Your task to perform on an android device: turn off location history Image 0: 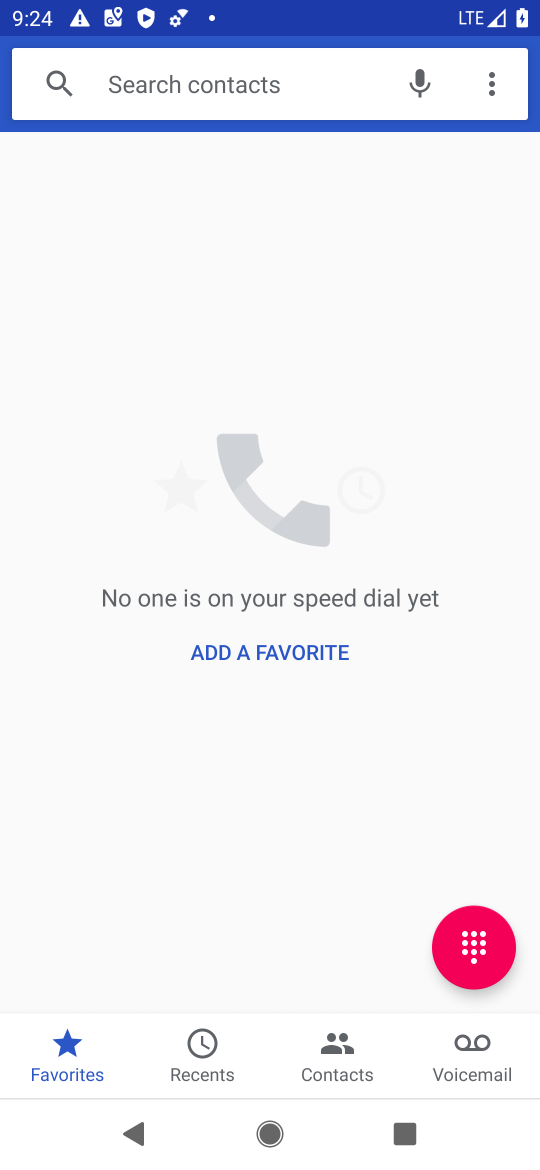
Step 0: press home button
Your task to perform on an android device: turn off location history Image 1: 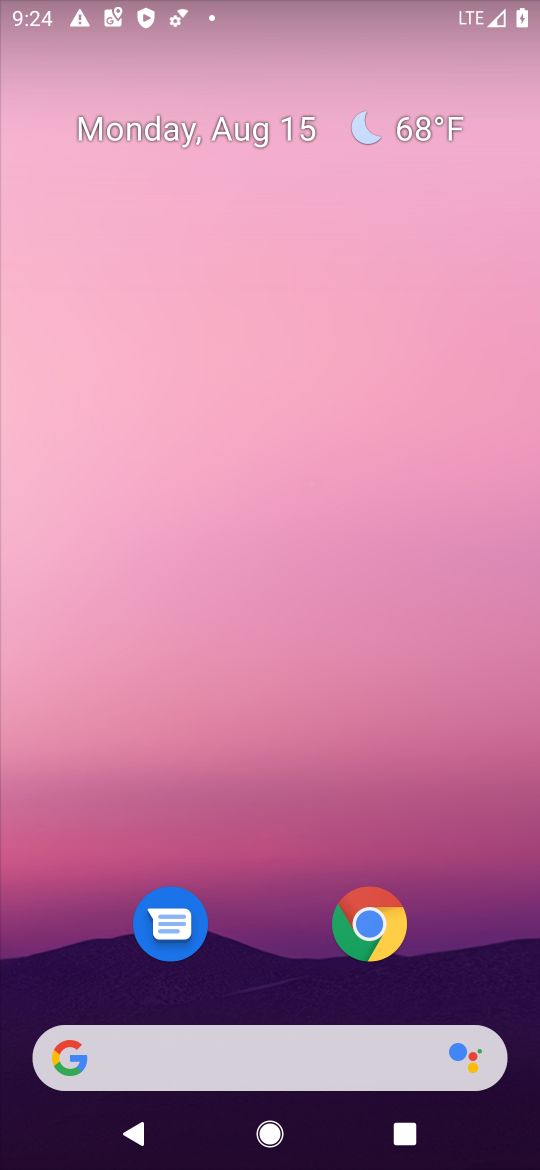
Step 1: drag from (493, 974) to (434, 186)
Your task to perform on an android device: turn off location history Image 2: 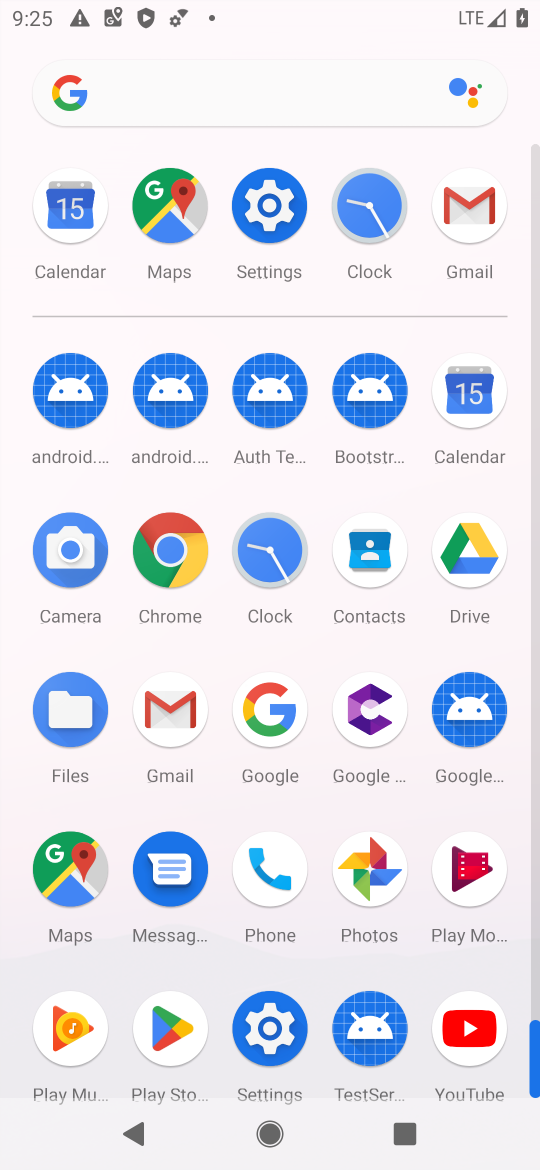
Step 2: click (71, 864)
Your task to perform on an android device: turn off location history Image 3: 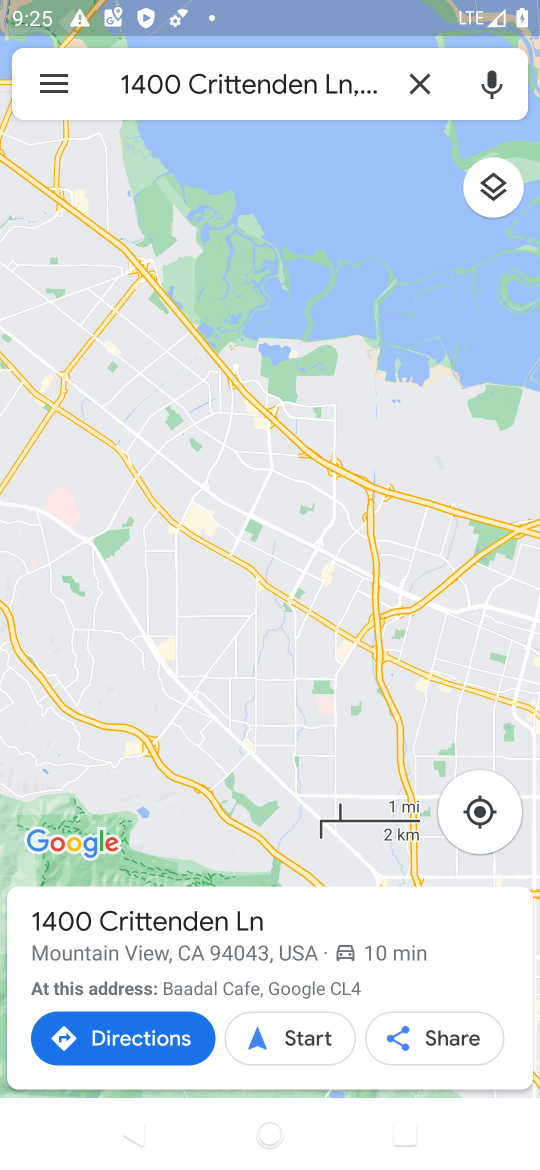
Step 3: click (416, 75)
Your task to perform on an android device: turn off location history Image 4: 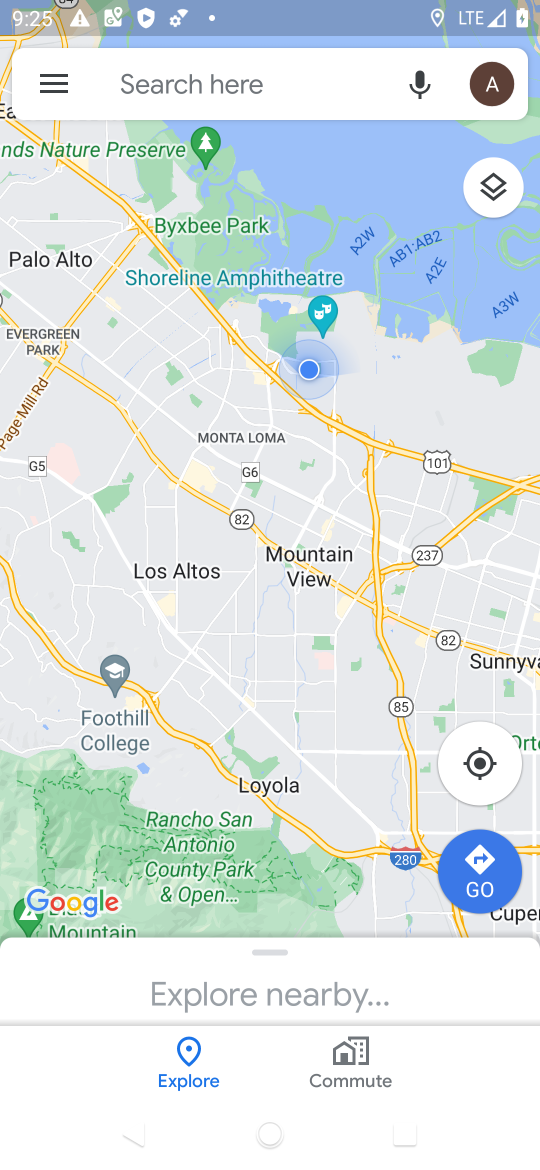
Step 4: click (51, 88)
Your task to perform on an android device: turn off location history Image 5: 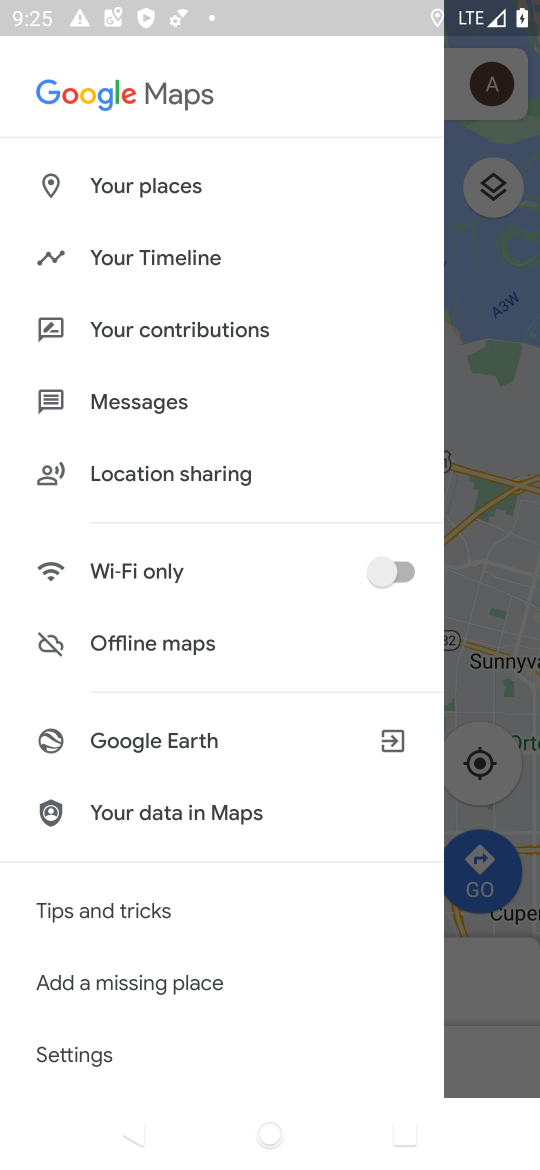
Step 5: drag from (211, 1034) to (218, 440)
Your task to perform on an android device: turn off location history Image 6: 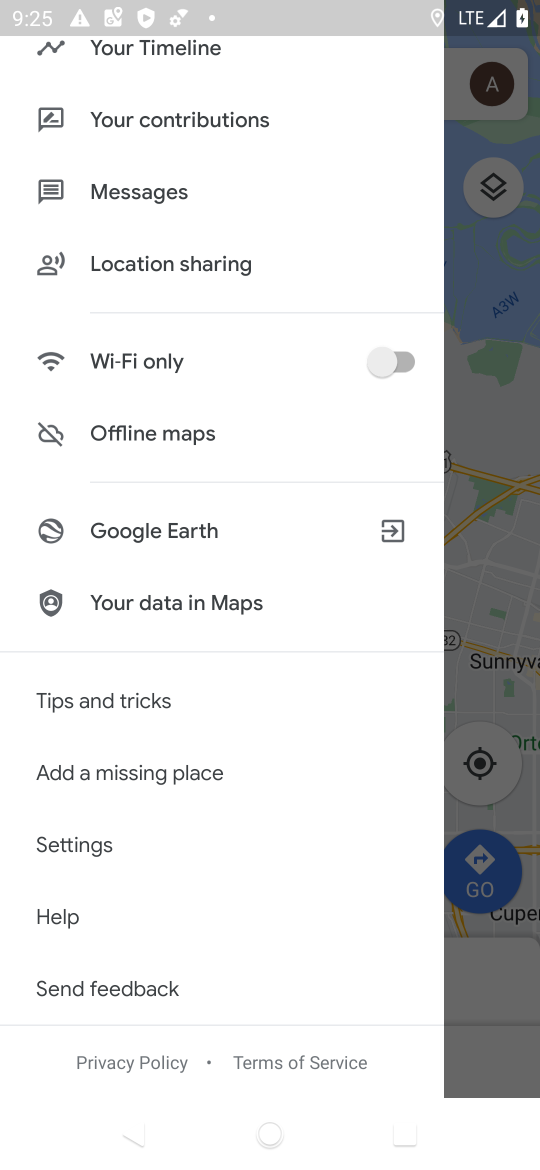
Step 6: click (65, 853)
Your task to perform on an android device: turn off location history Image 7: 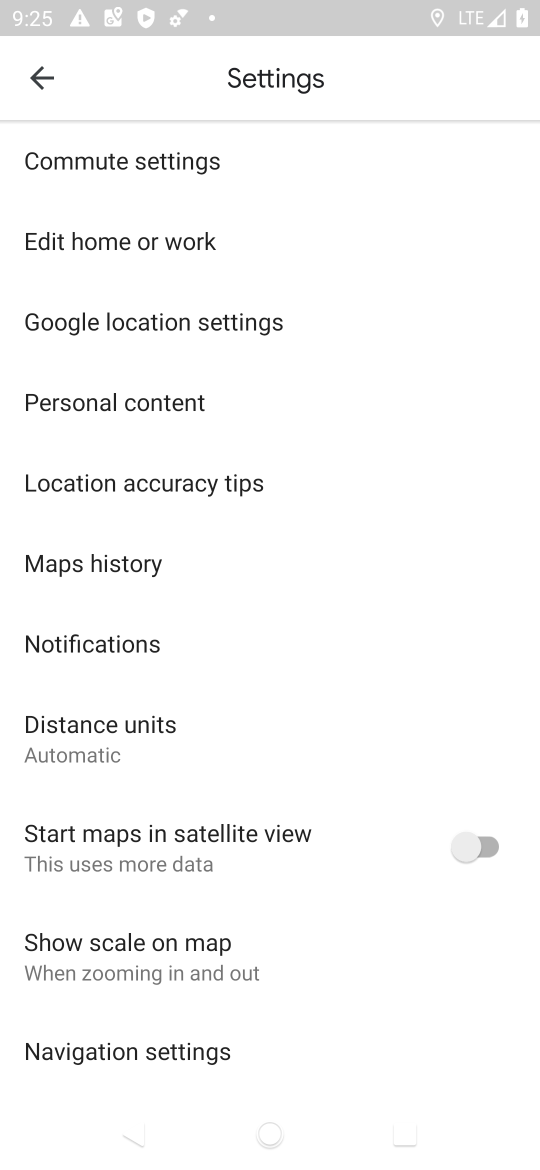
Step 7: click (110, 394)
Your task to perform on an android device: turn off location history Image 8: 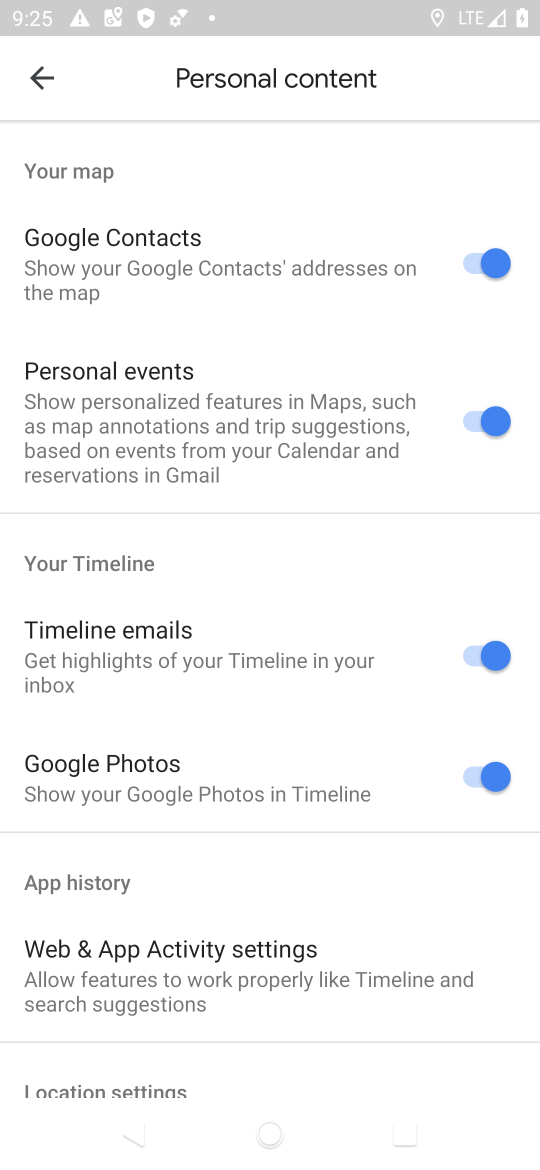
Step 8: drag from (367, 1012) to (297, 249)
Your task to perform on an android device: turn off location history Image 9: 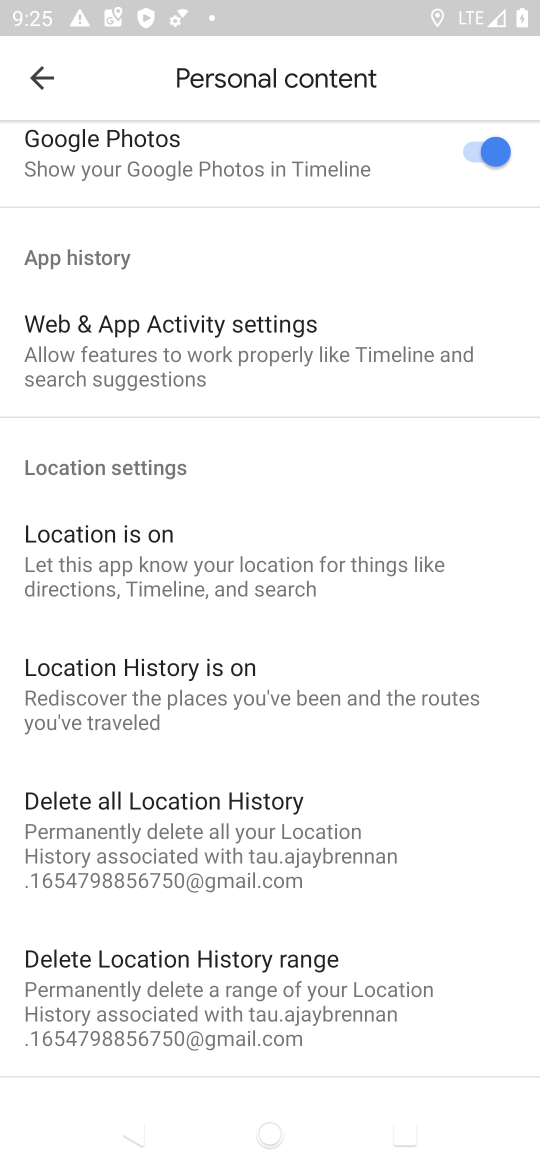
Step 9: click (119, 680)
Your task to perform on an android device: turn off location history Image 10: 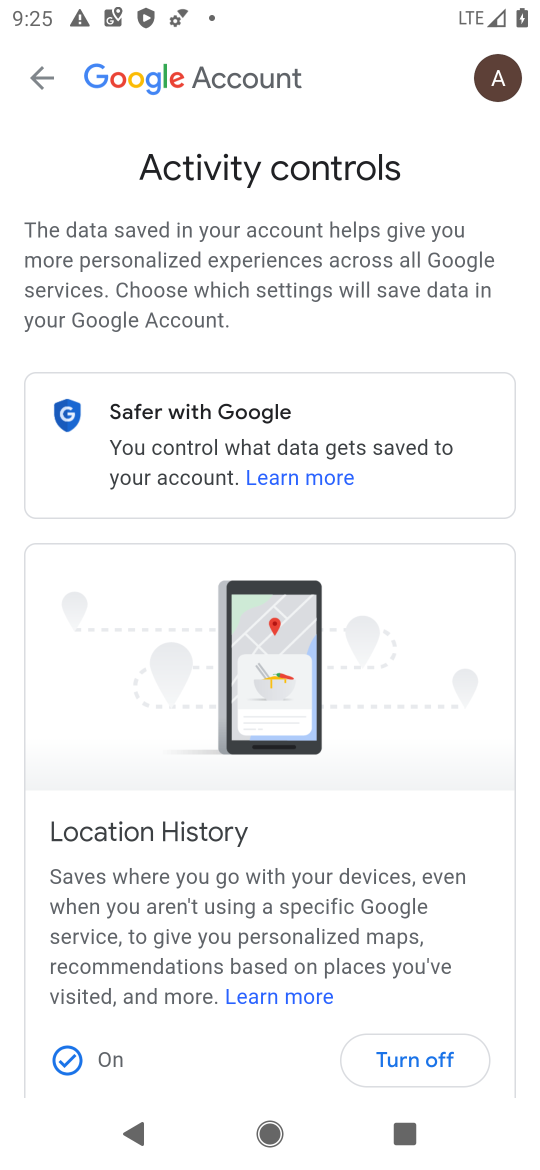
Step 10: drag from (446, 973) to (391, 488)
Your task to perform on an android device: turn off location history Image 11: 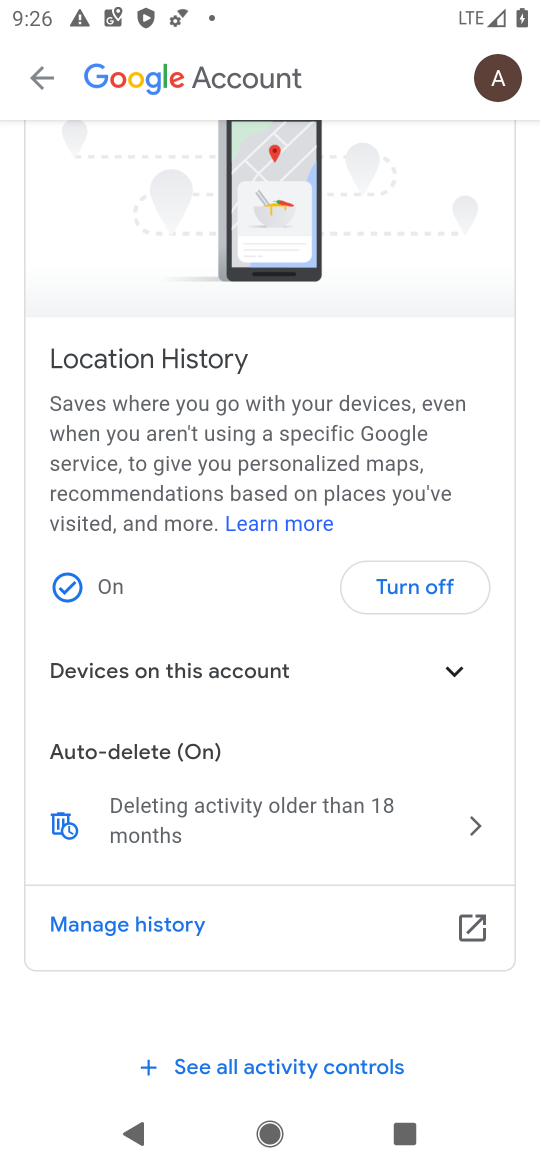
Step 11: click (419, 583)
Your task to perform on an android device: turn off location history Image 12: 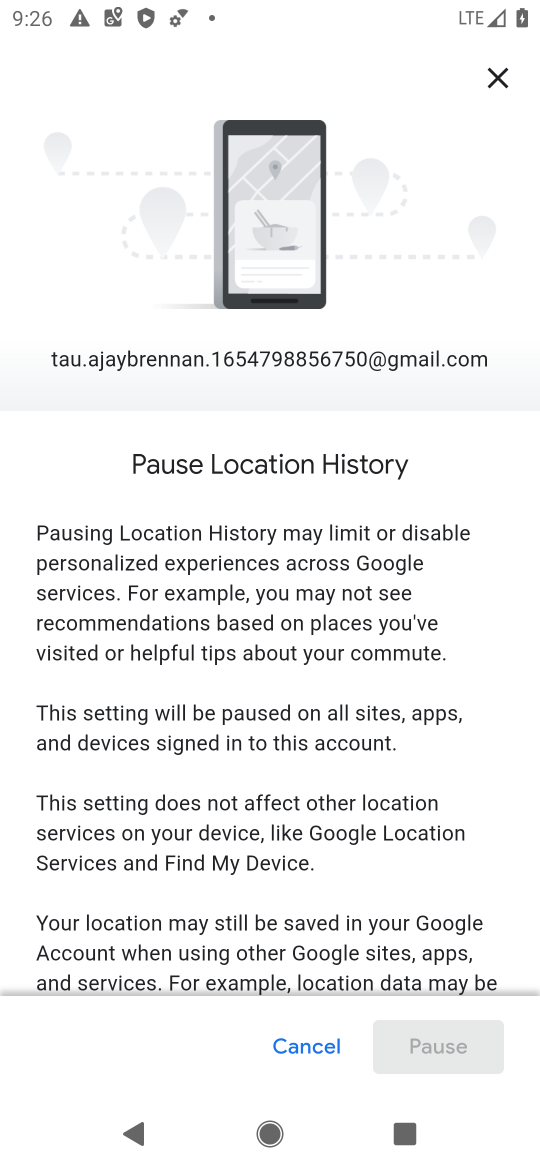
Step 12: drag from (371, 904) to (321, 265)
Your task to perform on an android device: turn off location history Image 13: 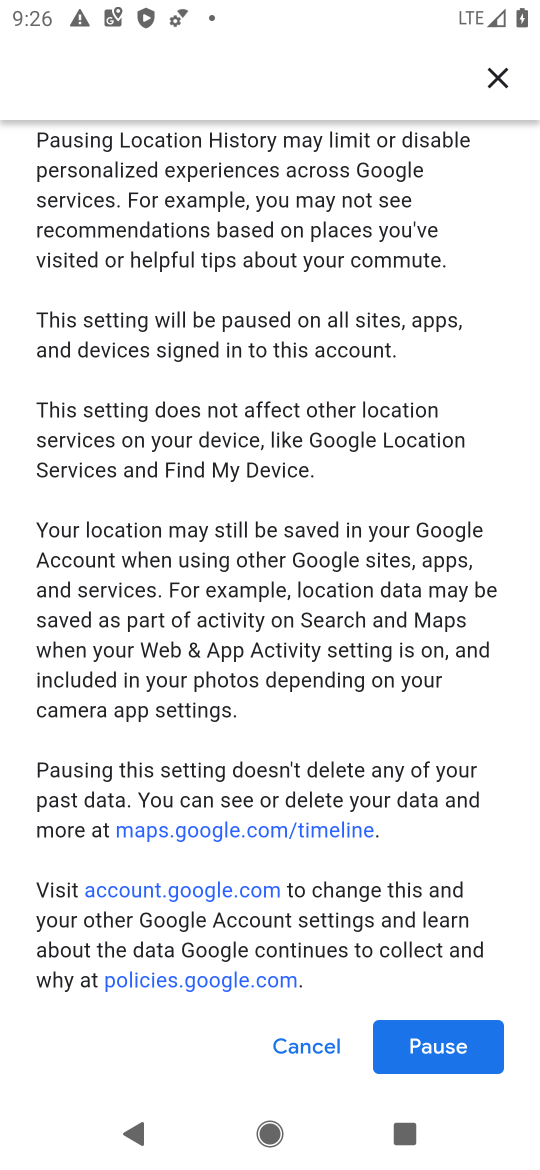
Step 13: click (439, 1050)
Your task to perform on an android device: turn off location history Image 14: 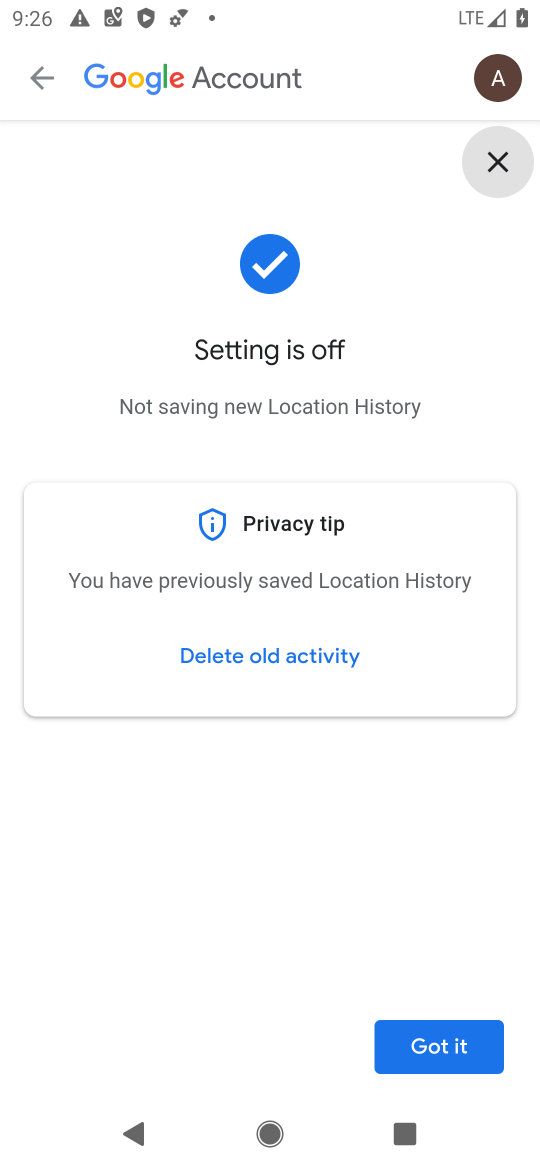
Step 14: click (452, 1056)
Your task to perform on an android device: turn off location history Image 15: 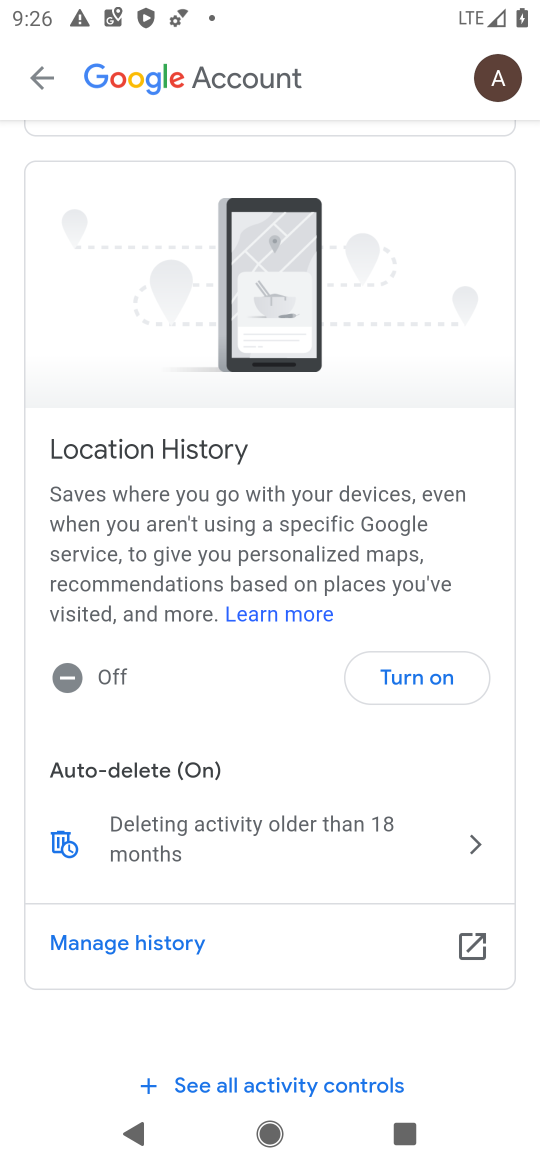
Step 15: task complete